Your task to perform on an android device: What is the recent news? Image 0: 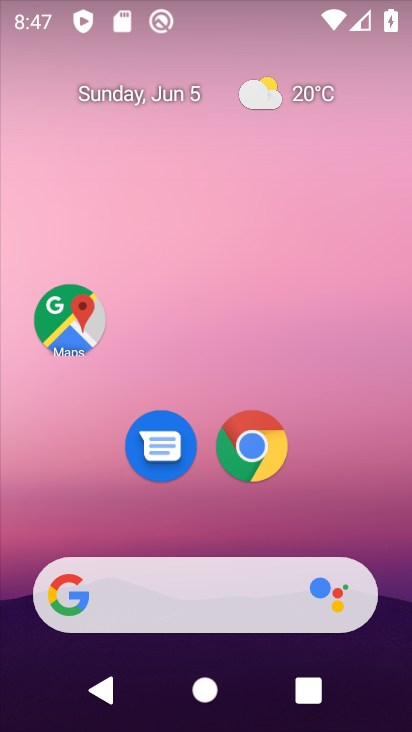
Step 0: drag from (201, 532) to (219, 272)
Your task to perform on an android device: What is the recent news? Image 1: 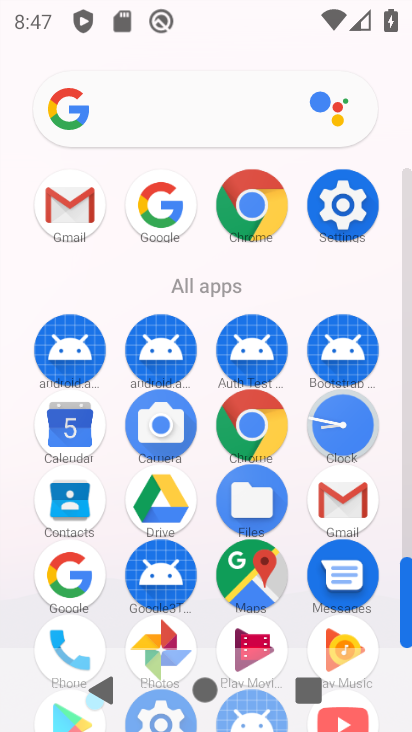
Step 1: click (174, 225)
Your task to perform on an android device: What is the recent news? Image 2: 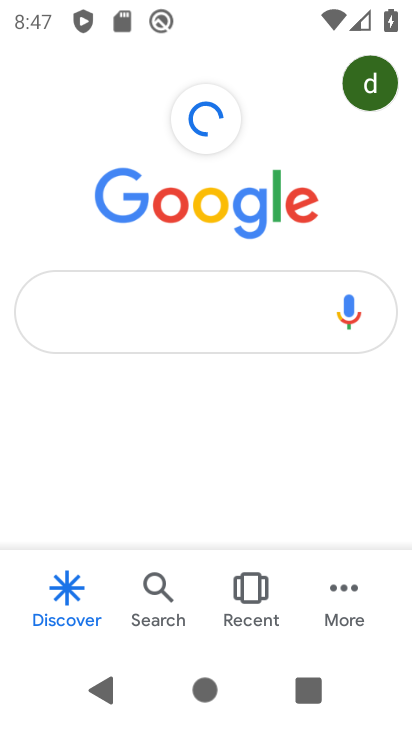
Step 2: click (193, 319)
Your task to perform on an android device: What is the recent news? Image 3: 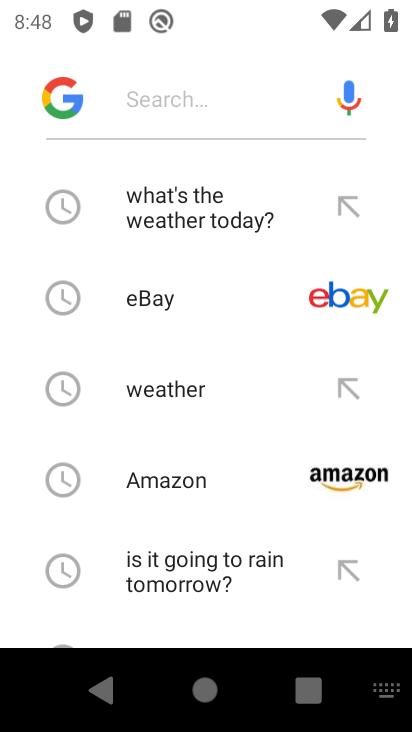
Step 3: type "news"
Your task to perform on an android device: What is the recent news? Image 4: 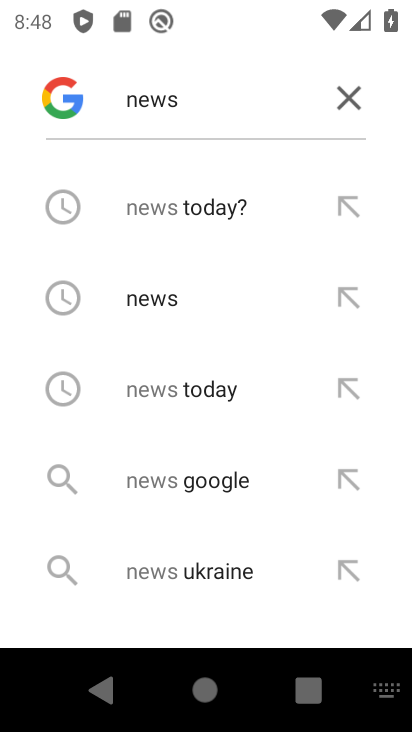
Step 4: click (199, 298)
Your task to perform on an android device: What is the recent news? Image 5: 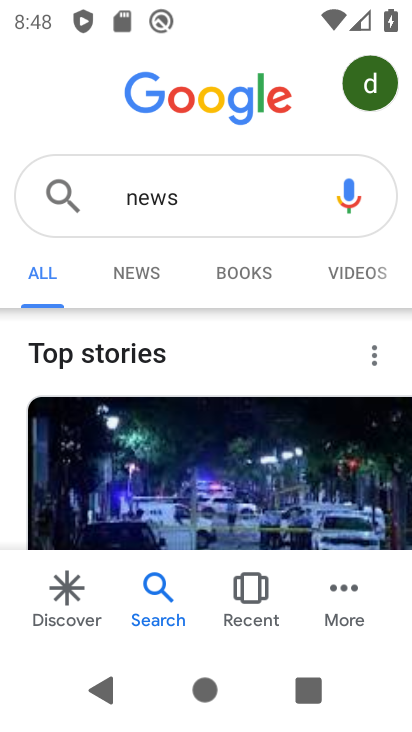
Step 5: click (137, 274)
Your task to perform on an android device: What is the recent news? Image 6: 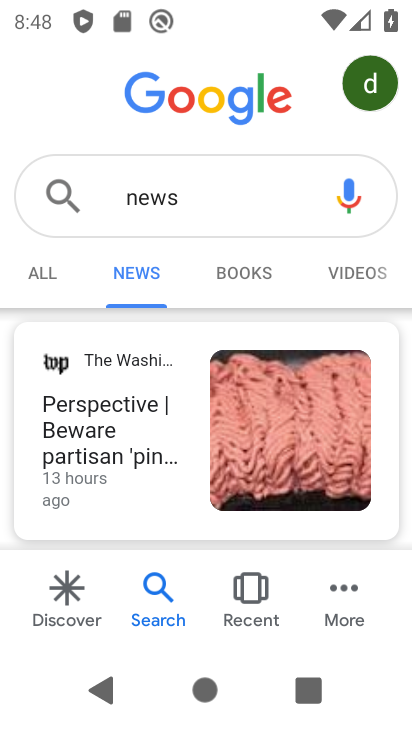
Step 6: task complete